Your task to perform on an android device: What's the weather today? Image 0: 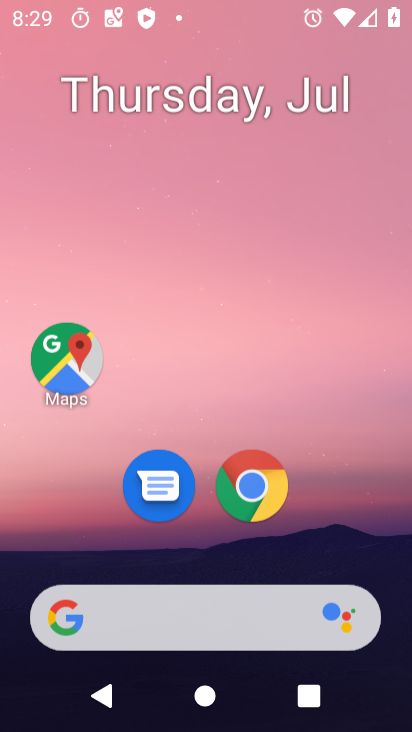
Step 0: press home button
Your task to perform on an android device: What's the weather today? Image 1: 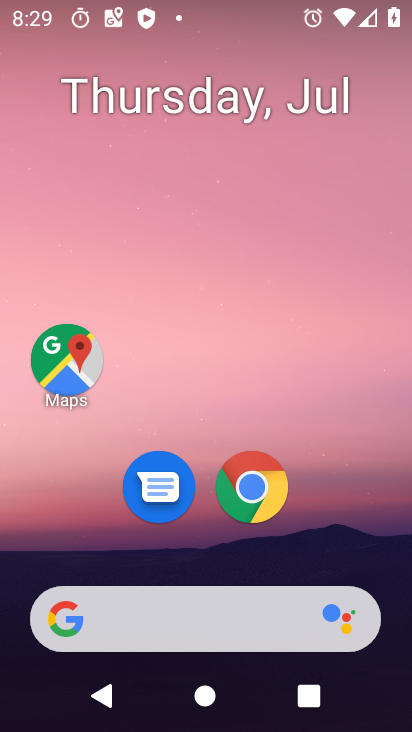
Step 1: drag from (260, 567) to (256, 123)
Your task to perform on an android device: What's the weather today? Image 2: 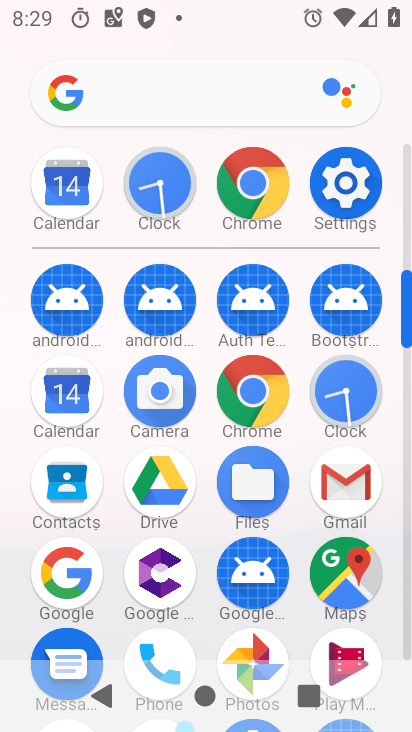
Step 2: click (66, 579)
Your task to perform on an android device: What's the weather today? Image 3: 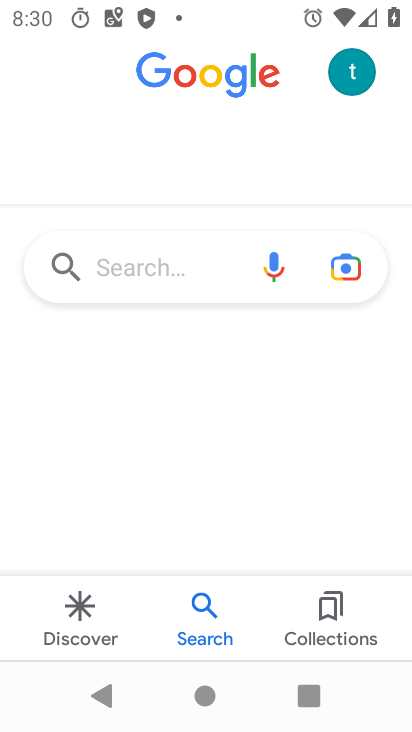
Step 3: click (166, 258)
Your task to perform on an android device: What's the weather today? Image 4: 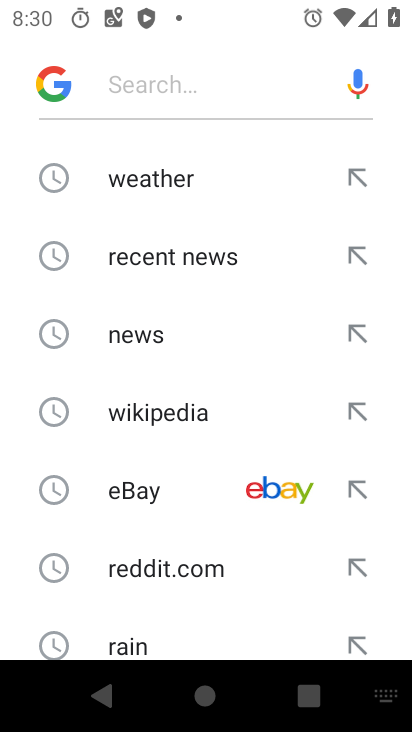
Step 4: click (170, 184)
Your task to perform on an android device: What's the weather today? Image 5: 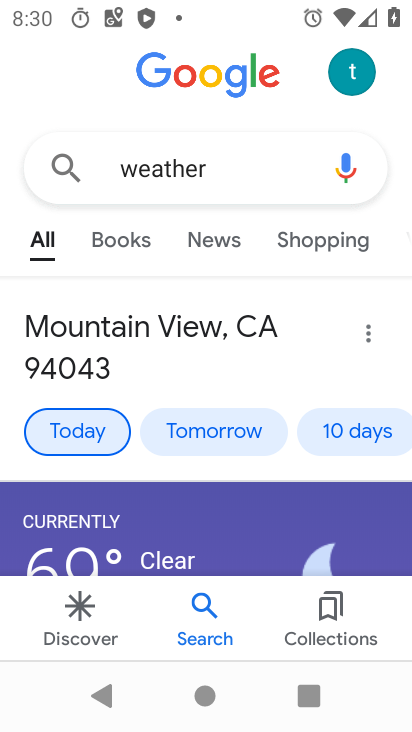
Step 5: task complete